Your task to perform on an android device: turn off location history Image 0: 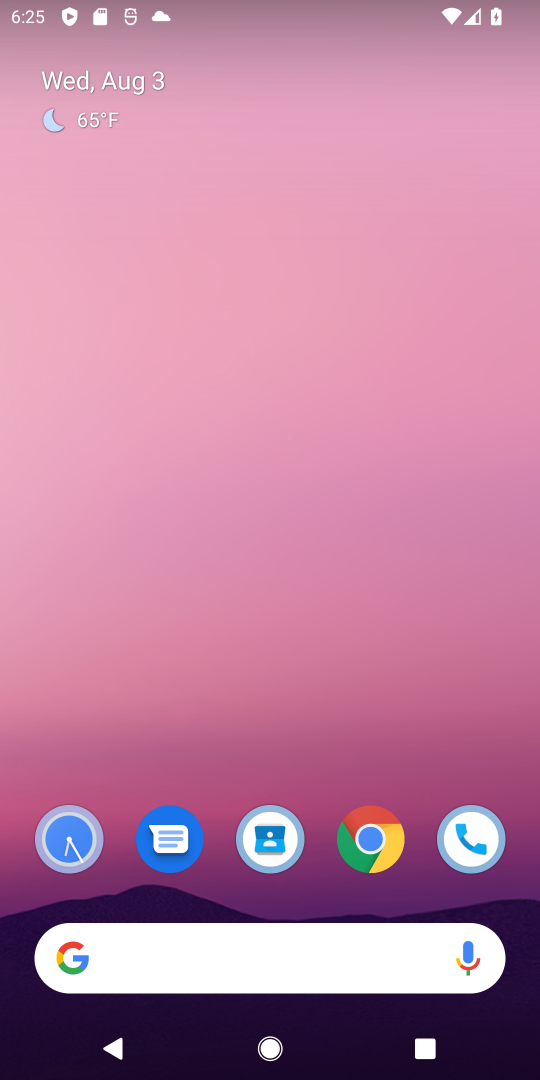
Step 0: drag from (319, 172) to (322, 119)
Your task to perform on an android device: turn off location history Image 1: 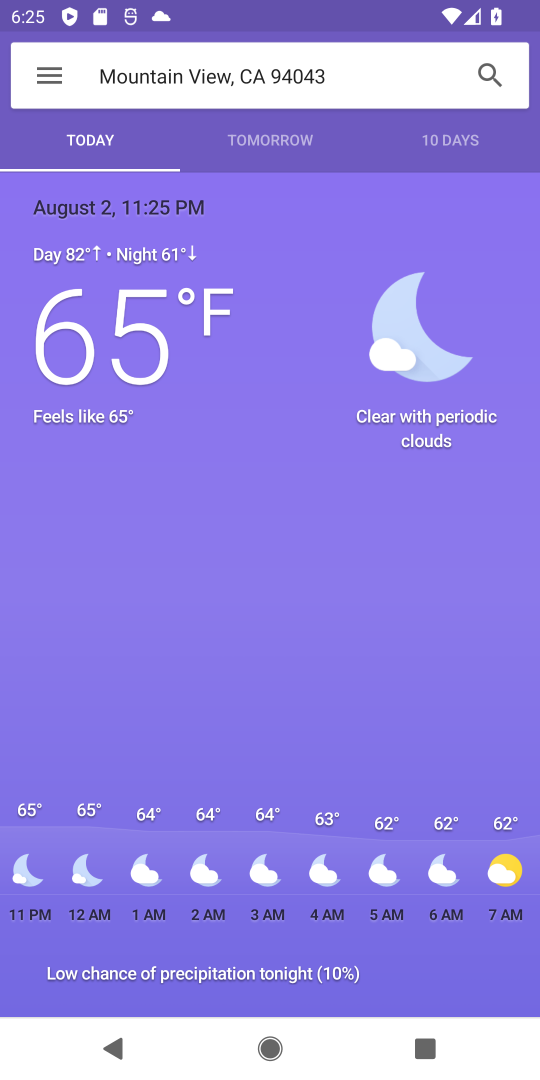
Step 1: press back button
Your task to perform on an android device: turn off location history Image 2: 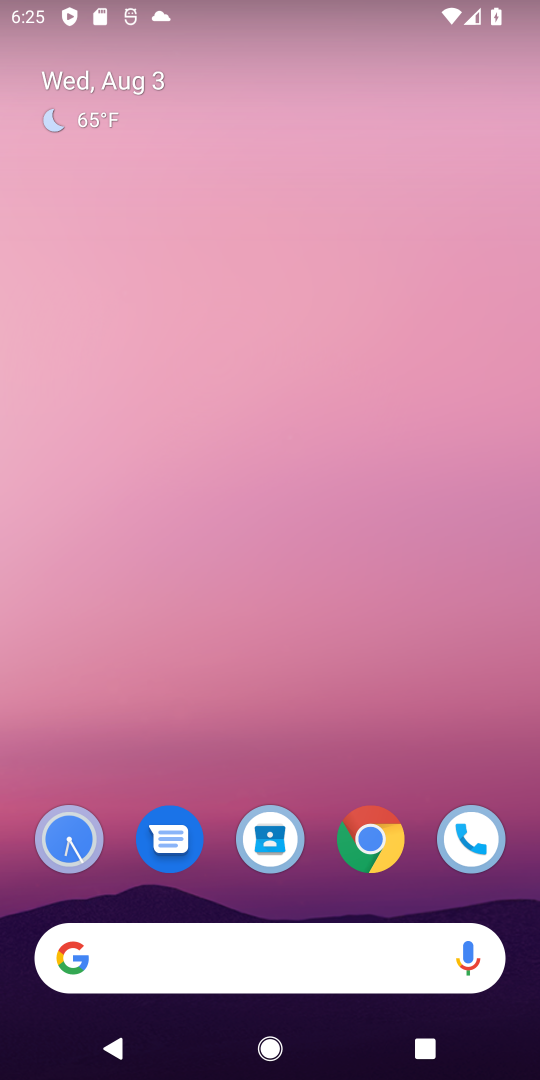
Step 2: drag from (288, 751) to (354, 7)
Your task to perform on an android device: turn off location history Image 3: 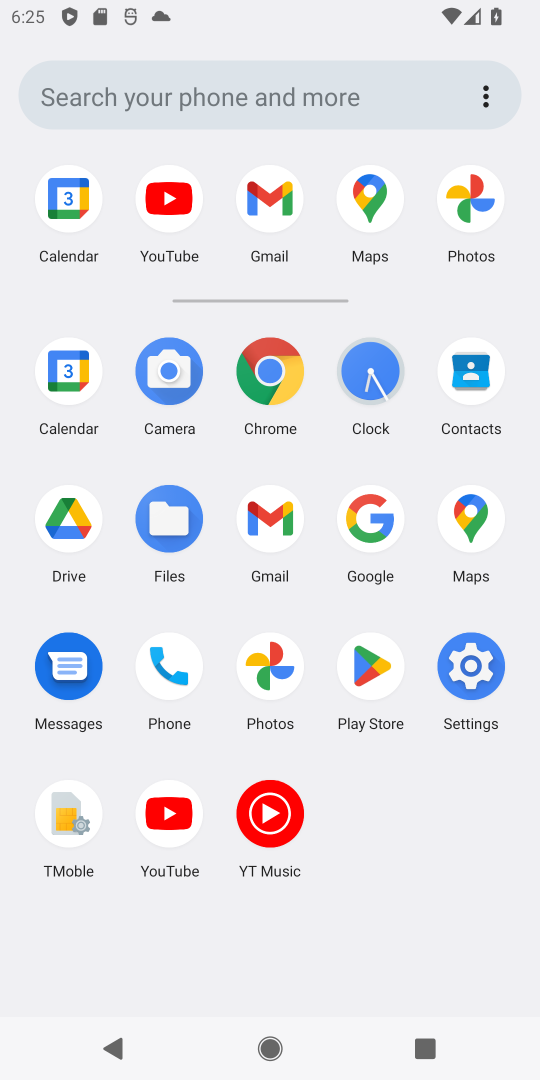
Step 3: click (451, 662)
Your task to perform on an android device: turn off location history Image 4: 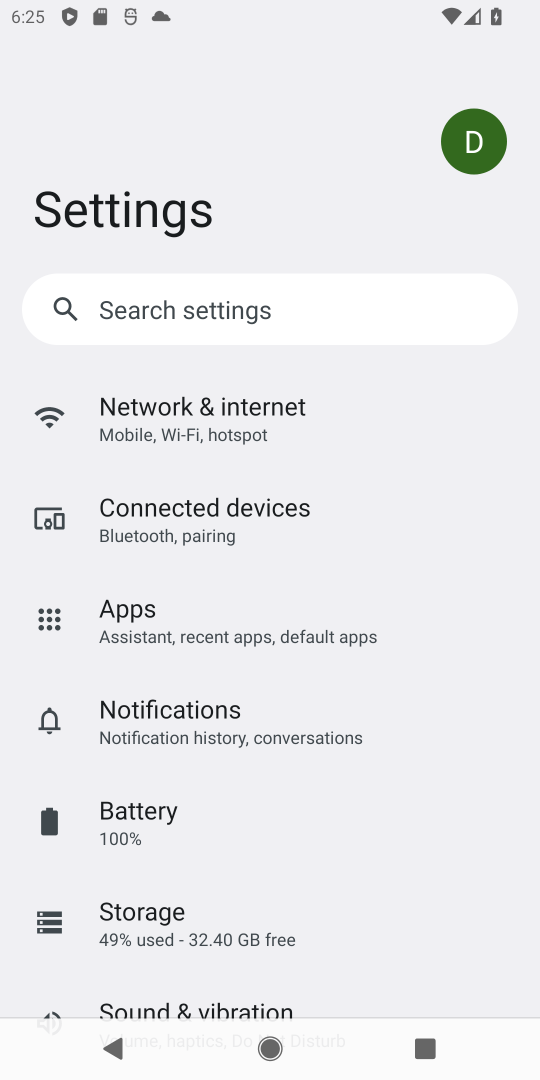
Step 4: drag from (225, 946) to (351, 63)
Your task to perform on an android device: turn off location history Image 5: 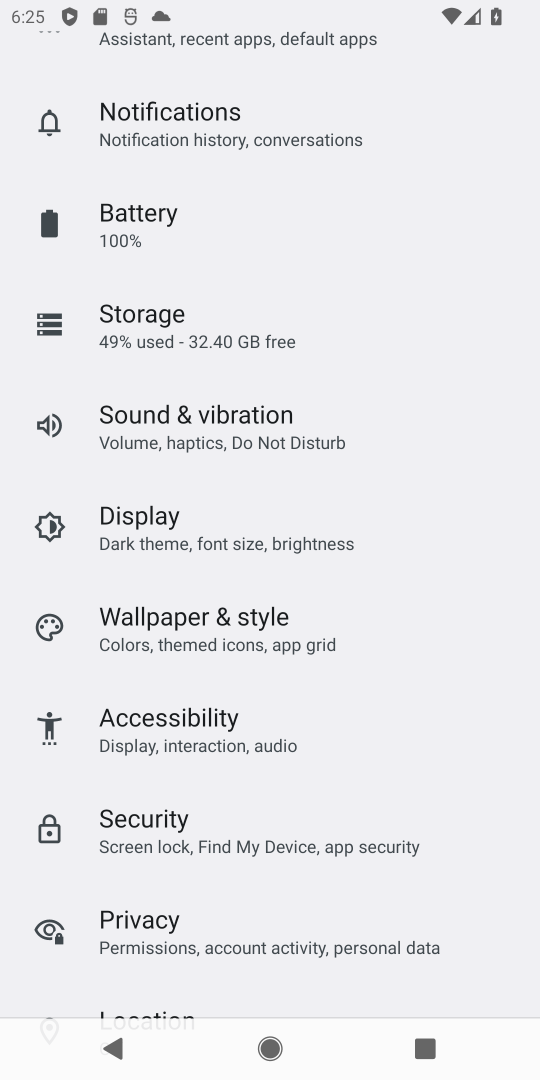
Step 5: drag from (250, 860) to (351, 233)
Your task to perform on an android device: turn off location history Image 6: 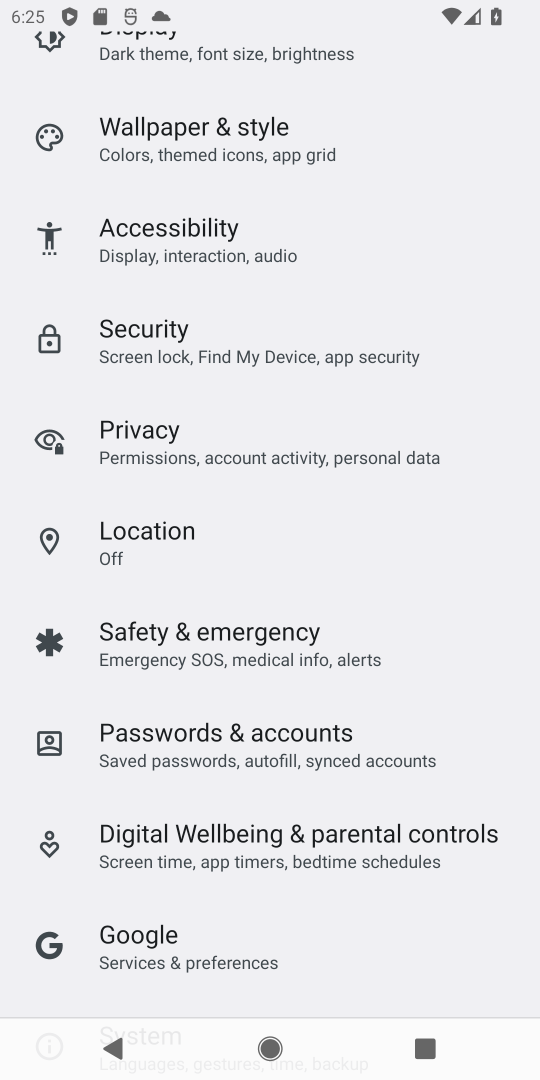
Step 6: click (163, 574)
Your task to perform on an android device: turn off location history Image 7: 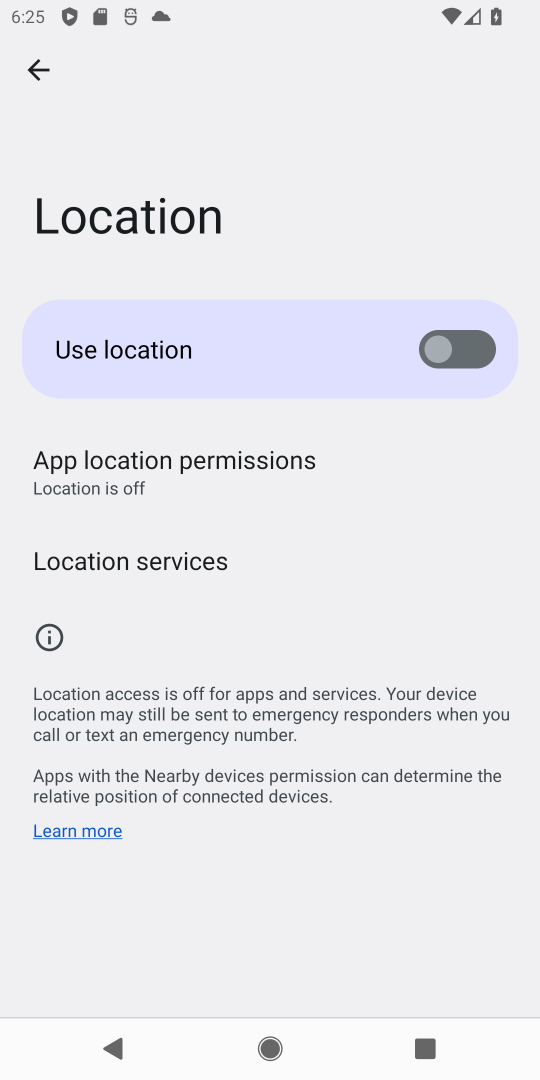
Step 7: task complete